Your task to perform on an android device: Go to Reddit.com Image 0: 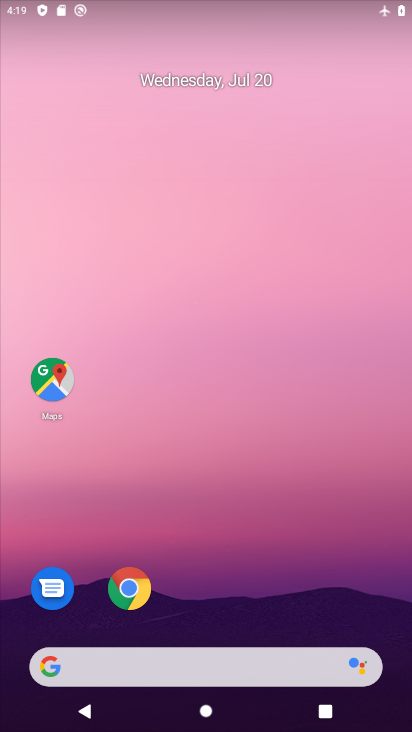
Step 0: click (130, 583)
Your task to perform on an android device: Go to Reddit.com Image 1: 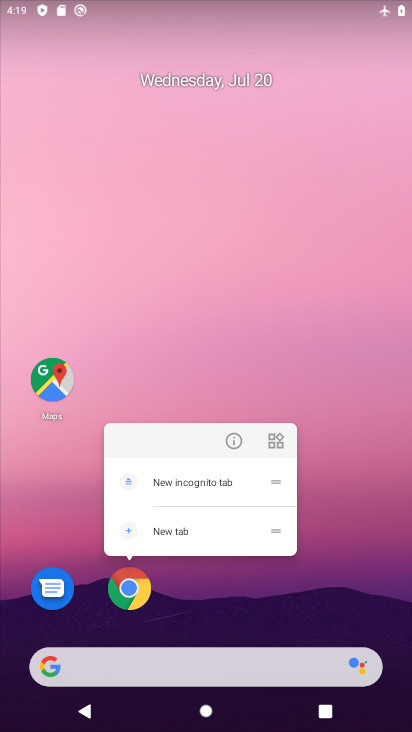
Step 1: click (130, 583)
Your task to perform on an android device: Go to Reddit.com Image 2: 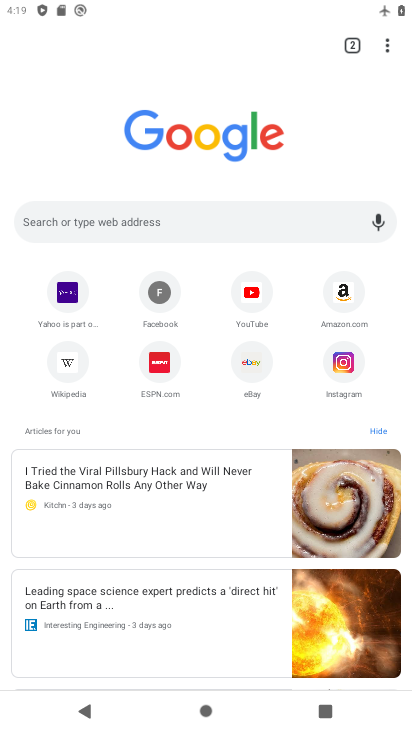
Step 2: click (141, 222)
Your task to perform on an android device: Go to Reddit.com Image 3: 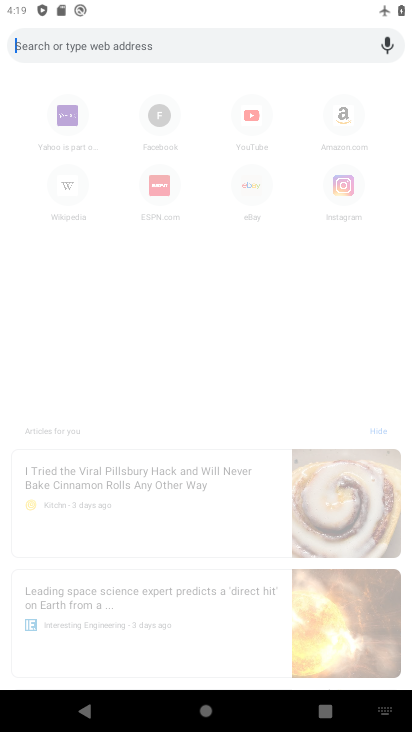
Step 3: type "reddit"
Your task to perform on an android device: Go to Reddit.com Image 4: 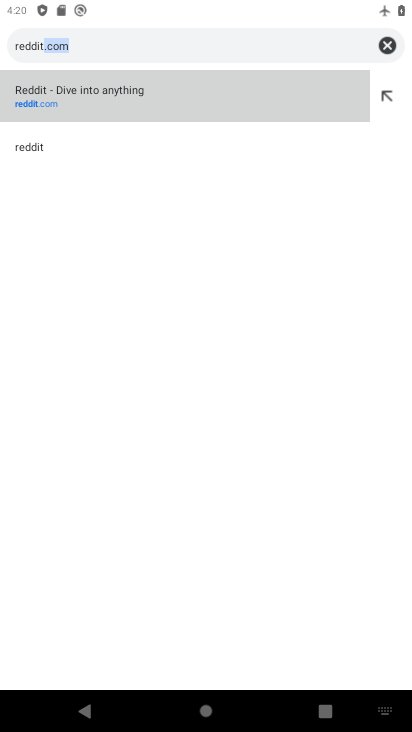
Step 4: click (51, 93)
Your task to perform on an android device: Go to Reddit.com Image 5: 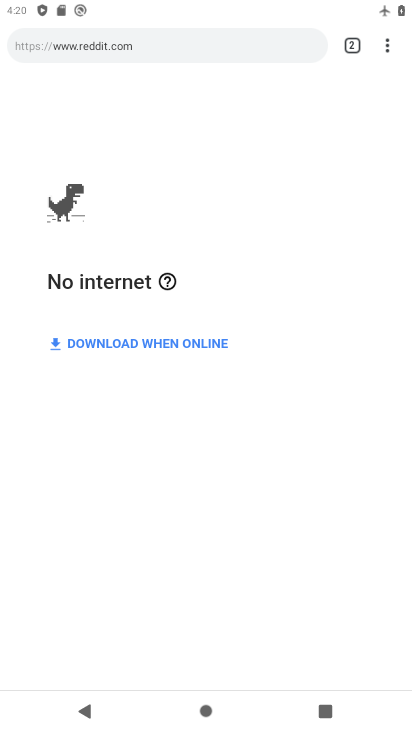
Step 5: task complete